Your task to perform on an android device: Go to CNN.com Image 0: 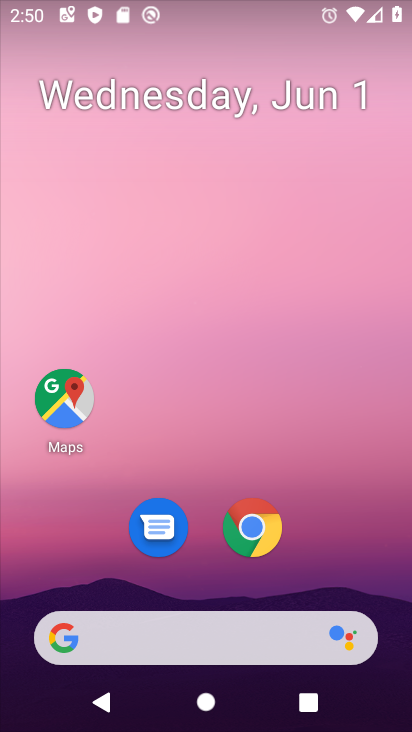
Step 0: click (251, 530)
Your task to perform on an android device: Go to CNN.com Image 1: 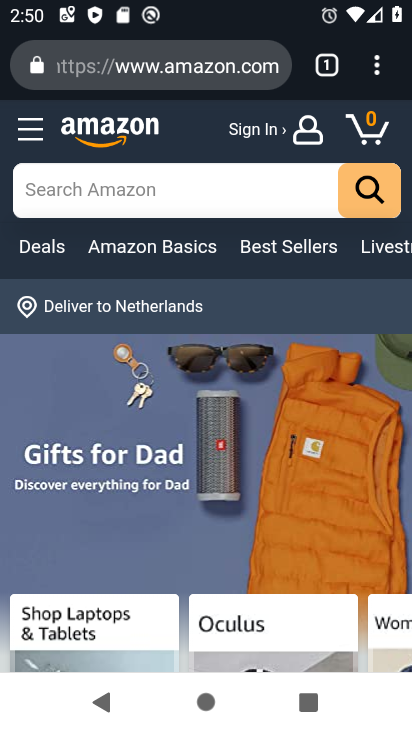
Step 1: click (220, 77)
Your task to perform on an android device: Go to CNN.com Image 2: 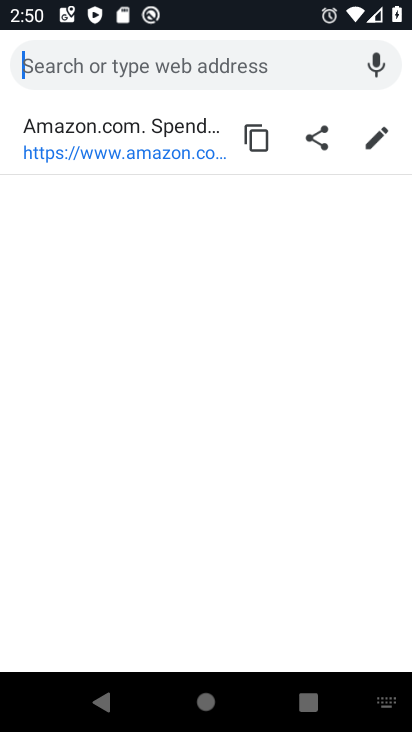
Step 2: type "CNN.com"
Your task to perform on an android device: Go to CNN.com Image 3: 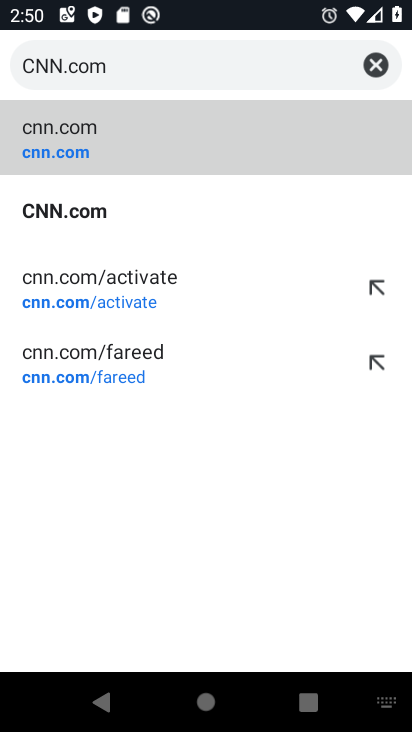
Step 3: click (95, 216)
Your task to perform on an android device: Go to CNN.com Image 4: 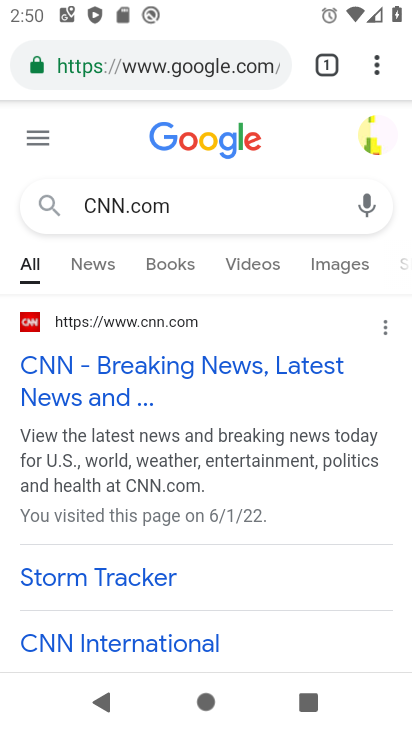
Step 4: click (107, 372)
Your task to perform on an android device: Go to CNN.com Image 5: 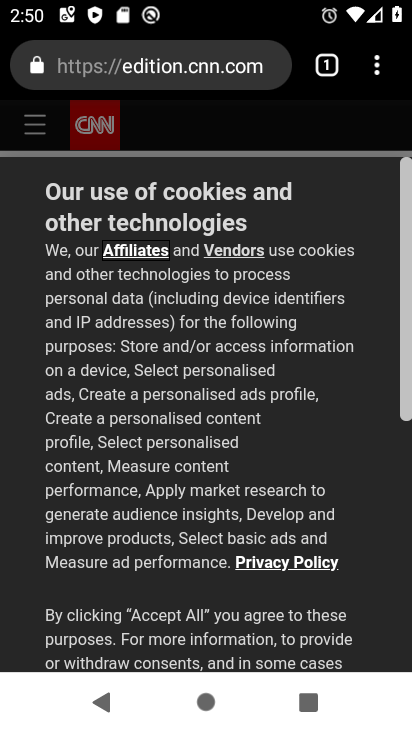
Step 5: task complete